Your task to perform on an android device: toggle priority inbox in the gmail app Image 0: 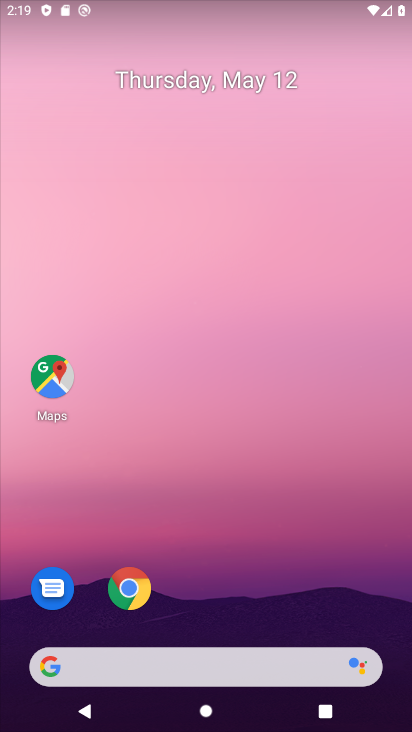
Step 0: drag from (282, 519) to (320, 0)
Your task to perform on an android device: toggle priority inbox in the gmail app Image 1: 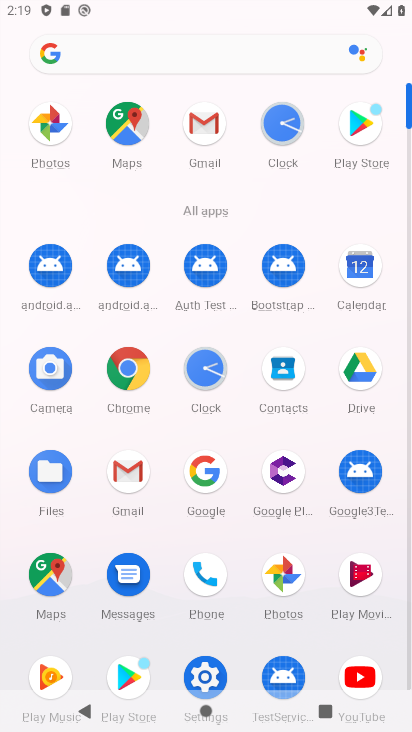
Step 1: click (200, 127)
Your task to perform on an android device: toggle priority inbox in the gmail app Image 2: 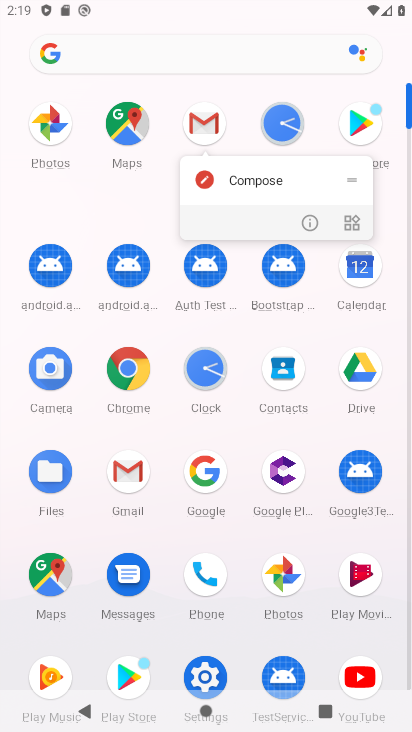
Step 2: click (178, 132)
Your task to perform on an android device: toggle priority inbox in the gmail app Image 3: 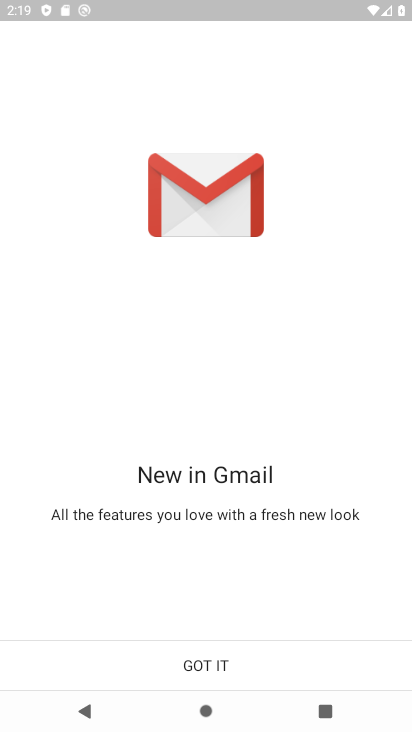
Step 3: click (184, 649)
Your task to perform on an android device: toggle priority inbox in the gmail app Image 4: 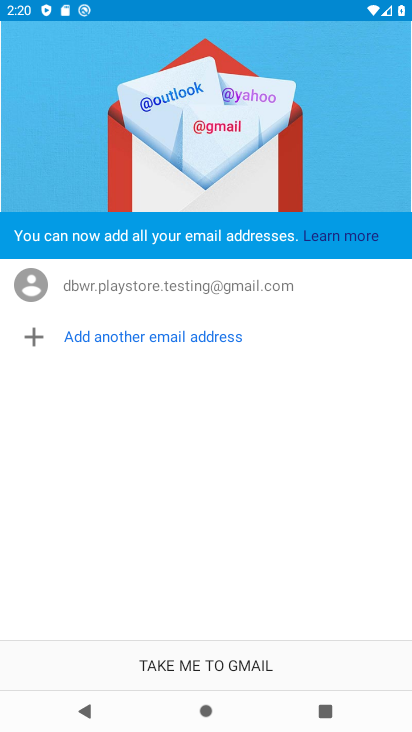
Step 4: click (185, 653)
Your task to perform on an android device: toggle priority inbox in the gmail app Image 5: 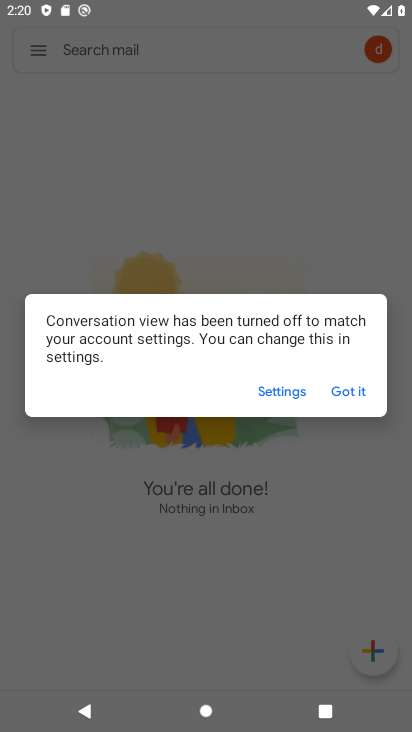
Step 5: click (348, 389)
Your task to perform on an android device: toggle priority inbox in the gmail app Image 6: 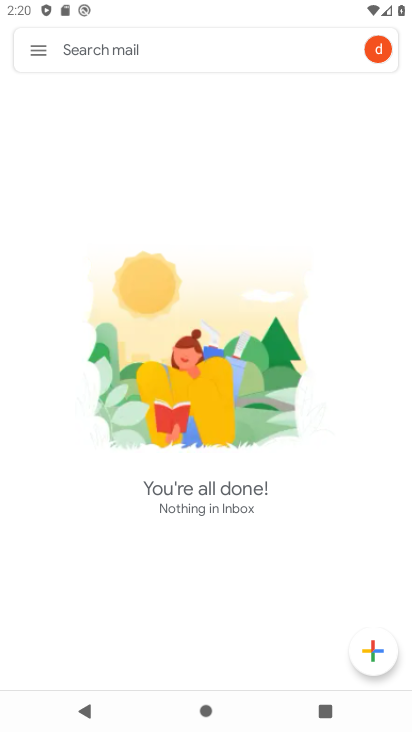
Step 6: click (34, 48)
Your task to perform on an android device: toggle priority inbox in the gmail app Image 7: 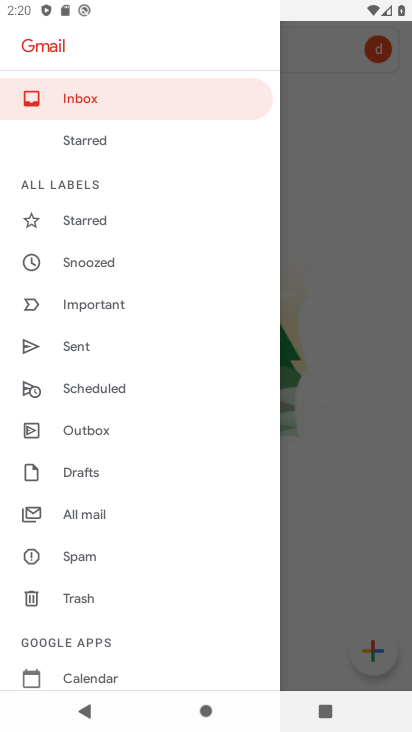
Step 7: drag from (81, 608) to (98, 233)
Your task to perform on an android device: toggle priority inbox in the gmail app Image 8: 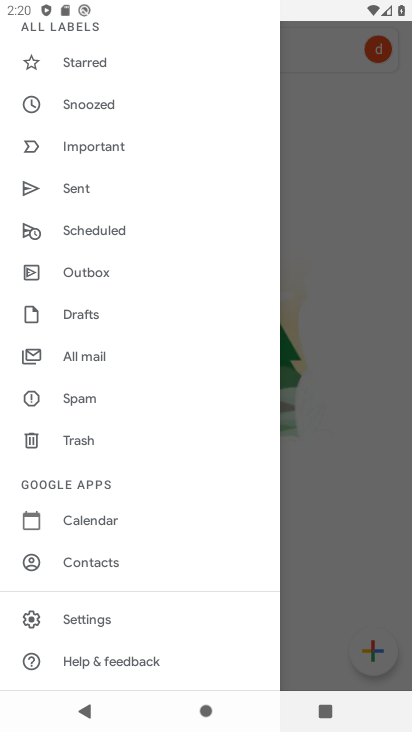
Step 8: click (108, 617)
Your task to perform on an android device: toggle priority inbox in the gmail app Image 9: 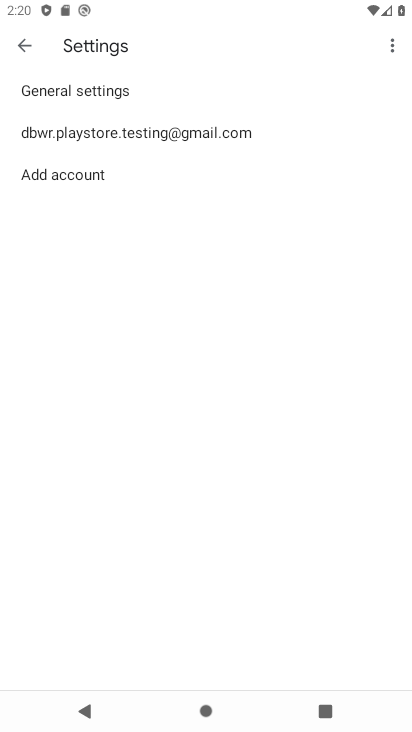
Step 9: click (61, 139)
Your task to perform on an android device: toggle priority inbox in the gmail app Image 10: 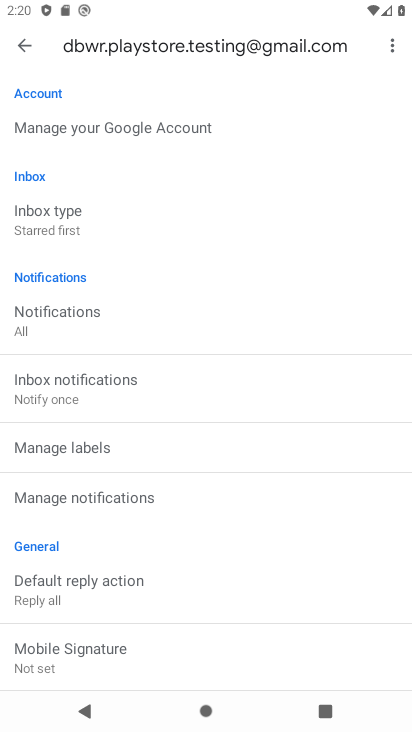
Step 10: drag from (140, 262) to (207, 612)
Your task to perform on an android device: toggle priority inbox in the gmail app Image 11: 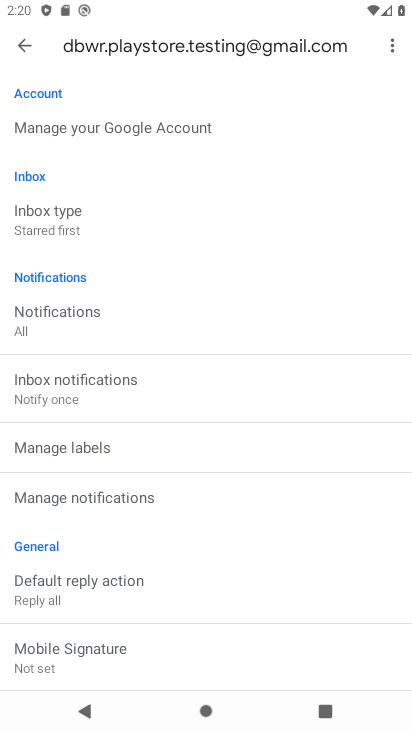
Step 11: click (58, 229)
Your task to perform on an android device: toggle priority inbox in the gmail app Image 12: 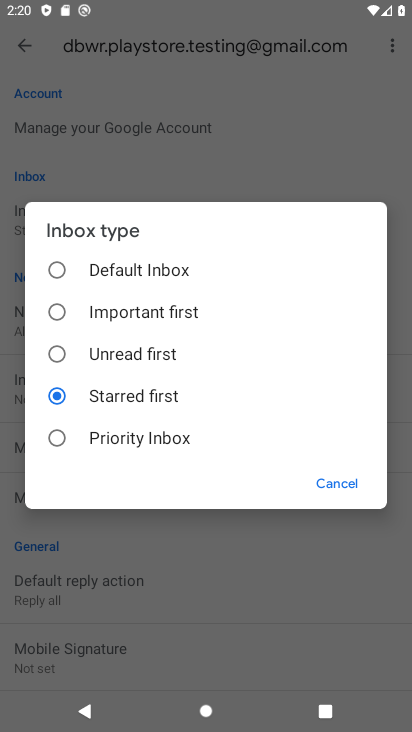
Step 12: click (55, 426)
Your task to perform on an android device: toggle priority inbox in the gmail app Image 13: 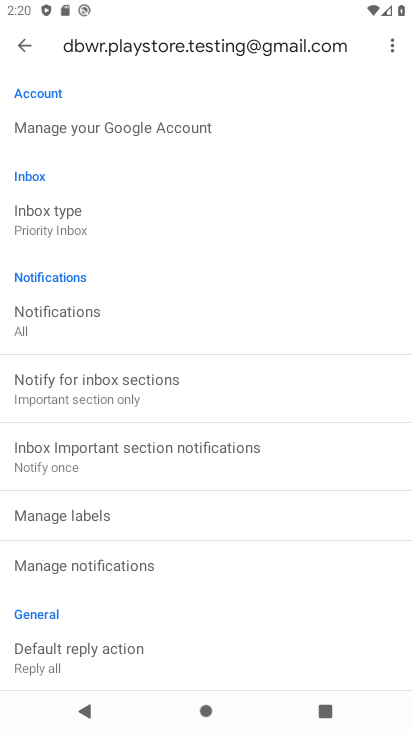
Step 13: task complete